Your task to perform on an android device: set an alarm Image 0: 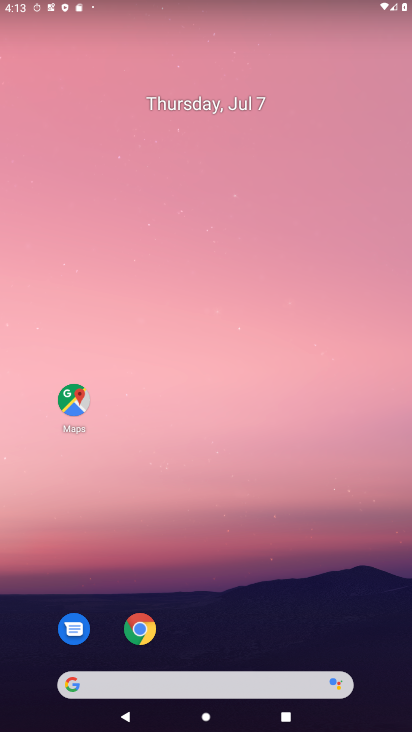
Step 0: drag from (303, 5) to (166, 10)
Your task to perform on an android device: set an alarm Image 1: 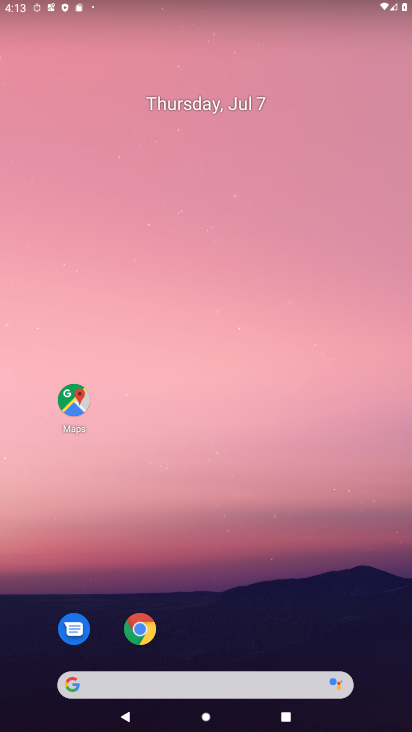
Step 1: drag from (197, 432) to (216, 21)
Your task to perform on an android device: set an alarm Image 2: 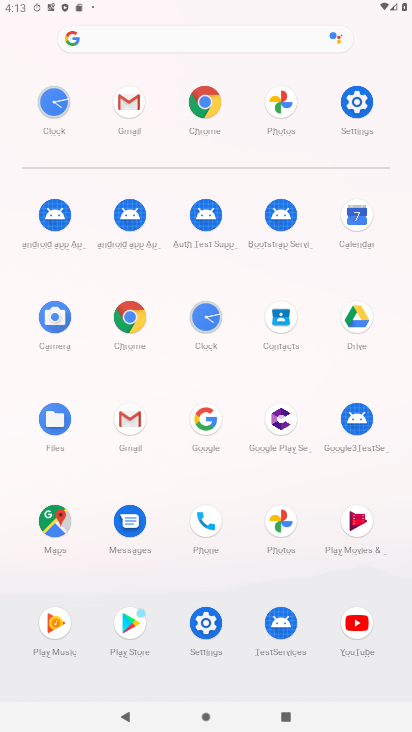
Step 2: click (353, 111)
Your task to perform on an android device: set an alarm Image 3: 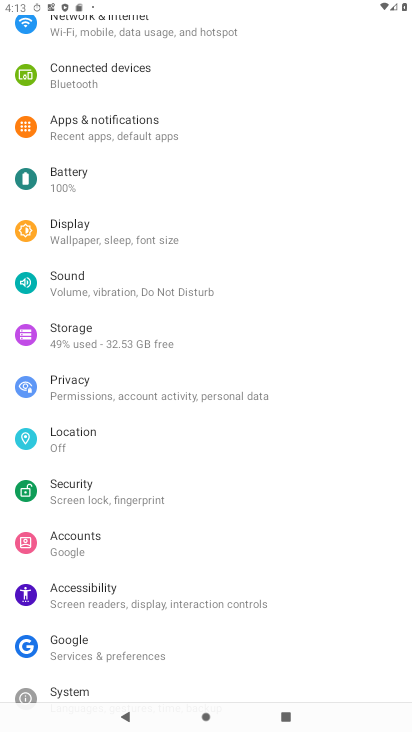
Step 3: drag from (167, 234) to (158, 626)
Your task to perform on an android device: set an alarm Image 4: 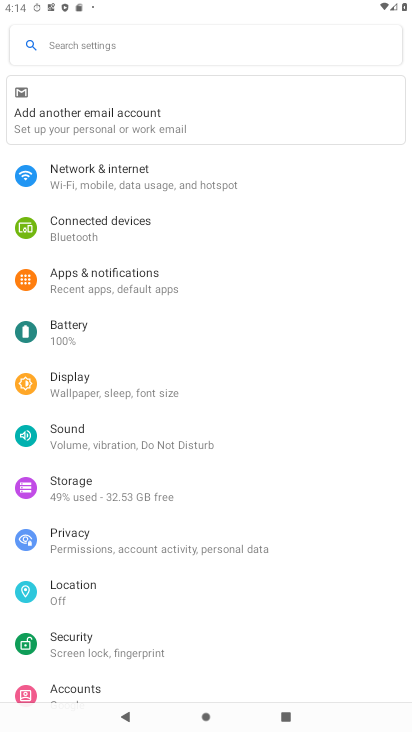
Step 4: press back button
Your task to perform on an android device: set an alarm Image 5: 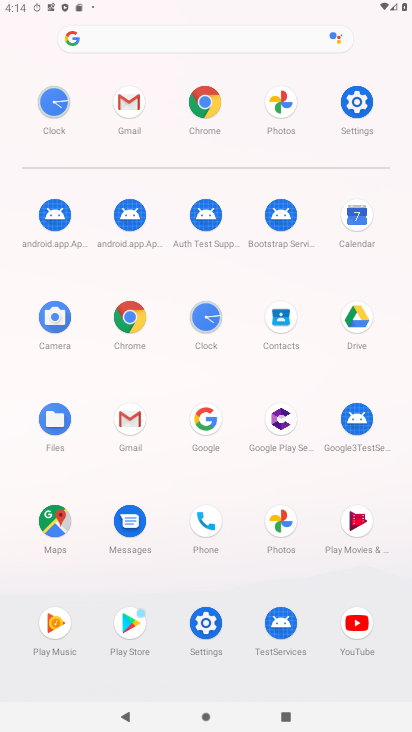
Step 5: click (203, 320)
Your task to perform on an android device: set an alarm Image 6: 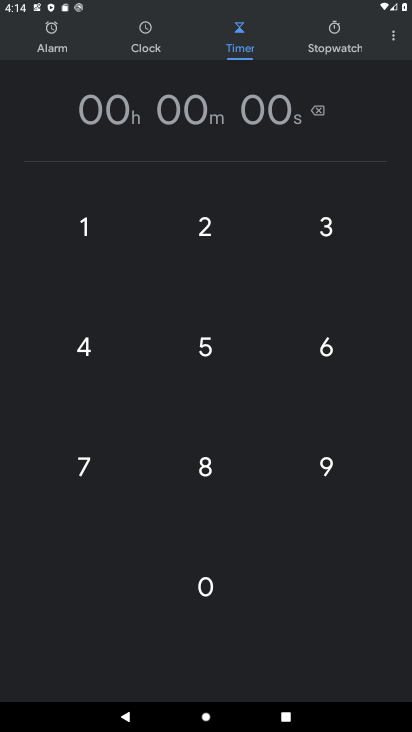
Step 6: click (41, 43)
Your task to perform on an android device: set an alarm Image 7: 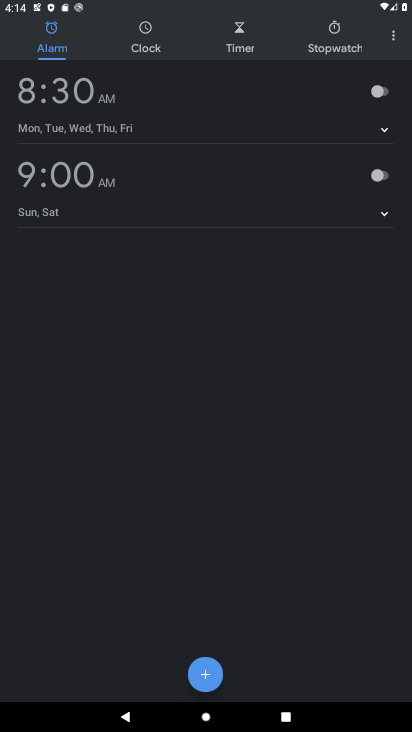
Step 7: click (379, 99)
Your task to perform on an android device: set an alarm Image 8: 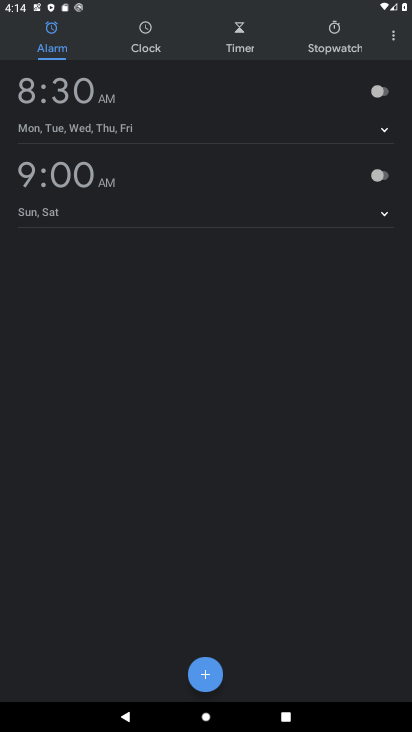
Step 8: click (379, 99)
Your task to perform on an android device: set an alarm Image 9: 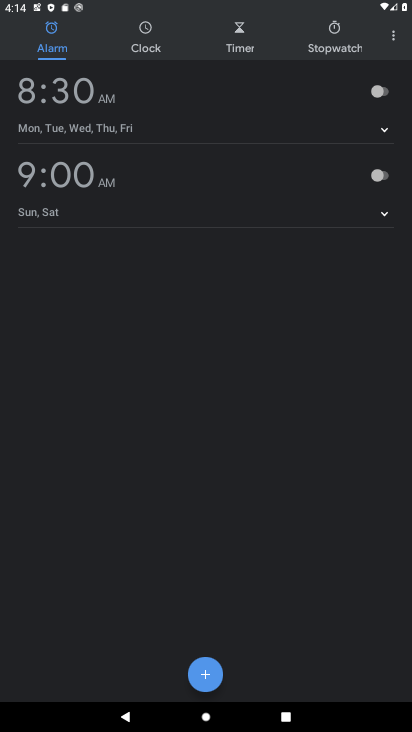
Step 9: click (387, 99)
Your task to perform on an android device: set an alarm Image 10: 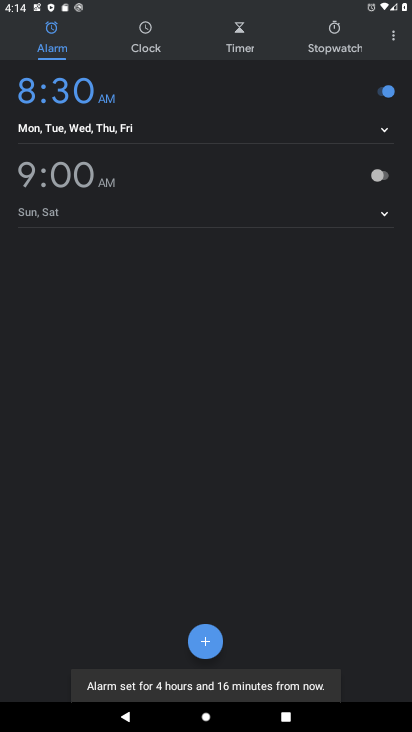
Step 10: task complete